Your task to perform on an android device: Search for "energizer triple a" on walmart.com, select the first entry, and add it to the cart. Image 0: 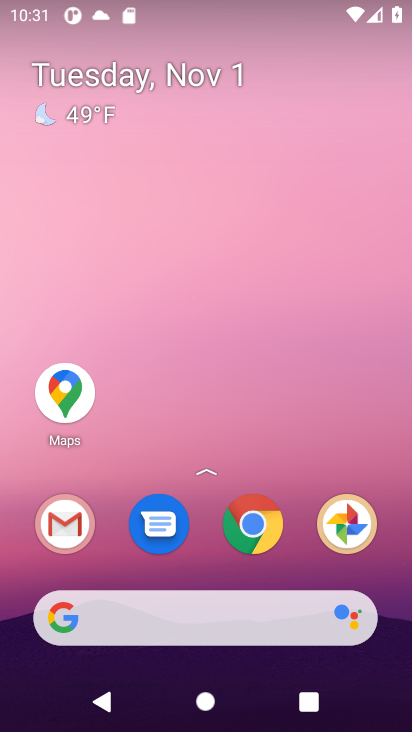
Step 0: press home button
Your task to perform on an android device: Search for "energizer triple a" on walmart.com, select the first entry, and add it to the cart. Image 1: 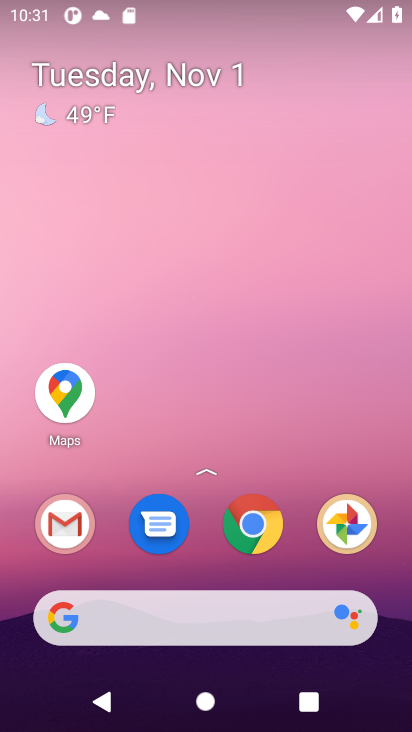
Step 1: click (85, 618)
Your task to perform on an android device: Search for "energizer triple a" on walmart.com, select the first entry, and add it to the cart. Image 2: 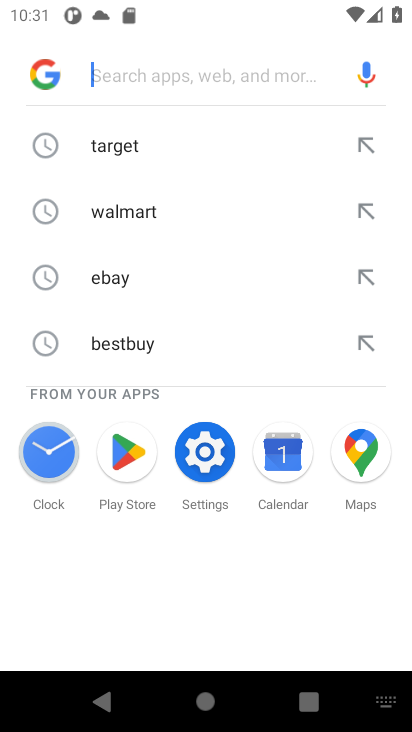
Step 2: type "walmart.com"
Your task to perform on an android device: Search for "energizer triple a" on walmart.com, select the first entry, and add it to the cart. Image 3: 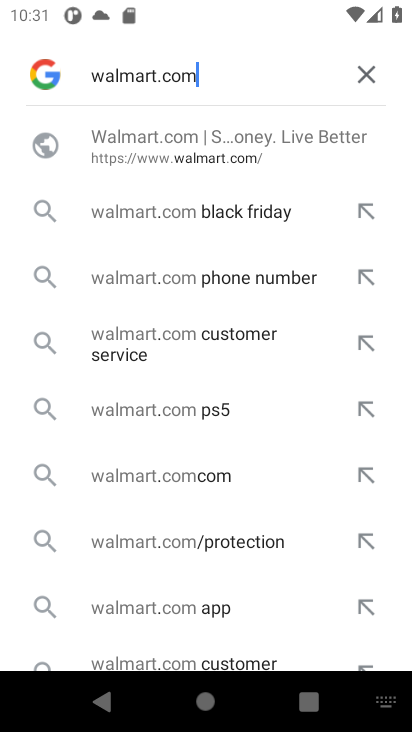
Step 3: press enter
Your task to perform on an android device: Search for "energizer triple a" on walmart.com, select the first entry, and add it to the cart. Image 4: 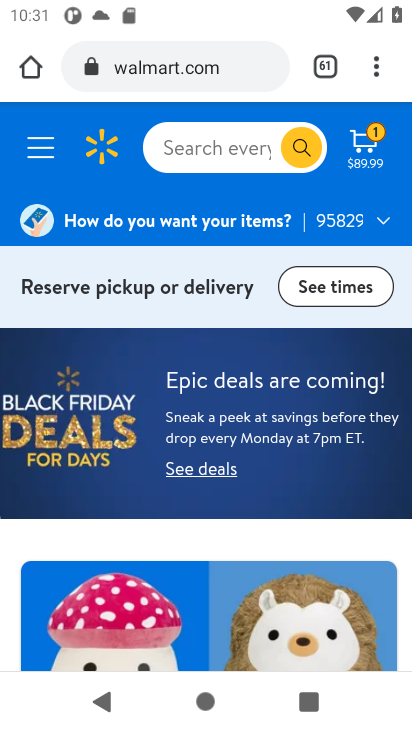
Step 4: click (174, 147)
Your task to perform on an android device: Search for "energizer triple a" on walmart.com, select the first entry, and add it to the cart. Image 5: 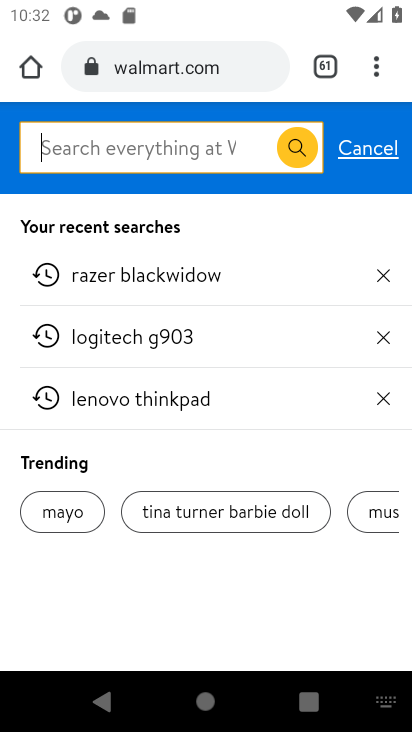
Step 5: press enter
Your task to perform on an android device: Search for "energizer triple a" on walmart.com, select the first entry, and add it to the cart. Image 6: 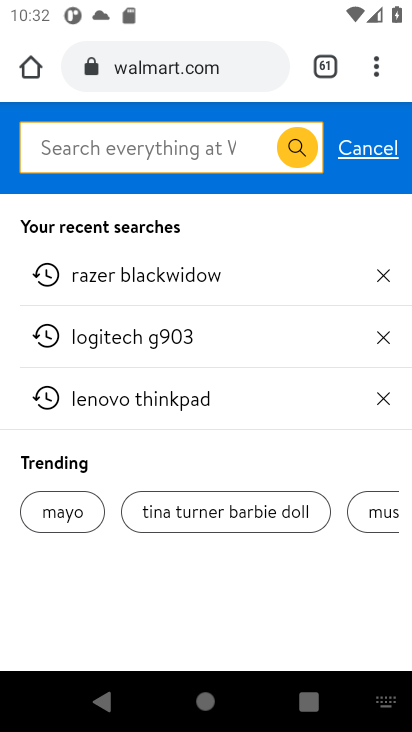
Step 6: type "energizer triple a"
Your task to perform on an android device: Search for "energizer triple a" on walmart.com, select the first entry, and add it to the cart. Image 7: 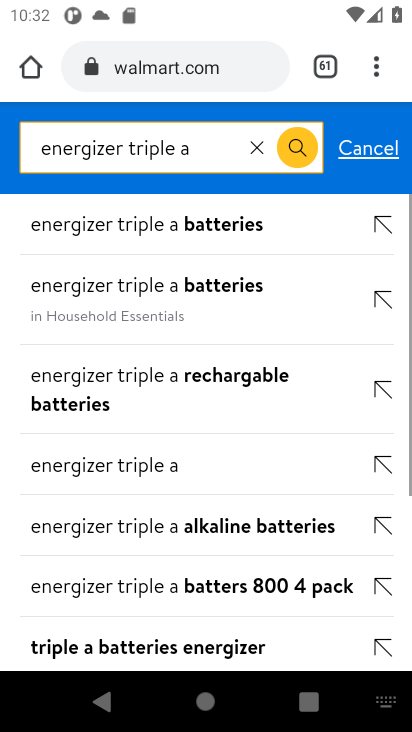
Step 7: press enter
Your task to perform on an android device: Search for "energizer triple a" on walmart.com, select the first entry, and add it to the cart. Image 8: 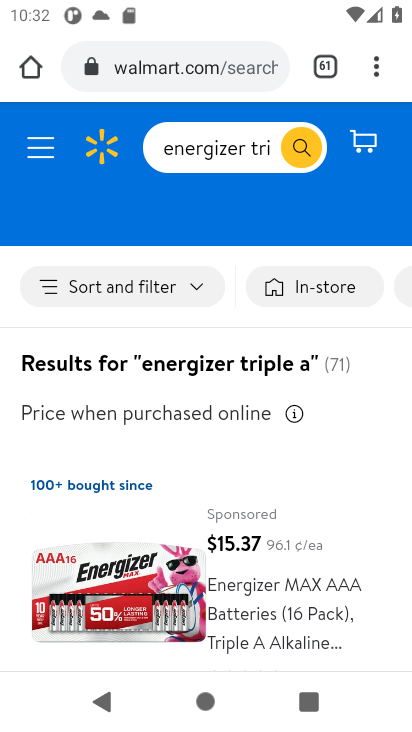
Step 8: drag from (270, 608) to (276, 333)
Your task to perform on an android device: Search for "energizer triple a" on walmart.com, select the first entry, and add it to the cart. Image 9: 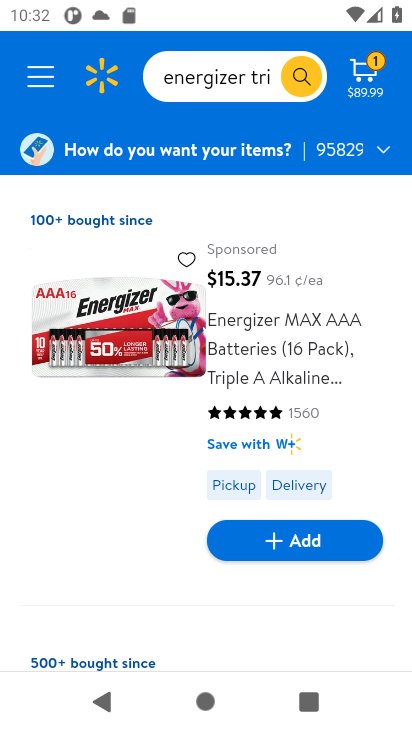
Step 9: drag from (155, 573) to (182, 391)
Your task to perform on an android device: Search for "energizer triple a" on walmart.com, select the first entry, and add it to the cart. Image 10: 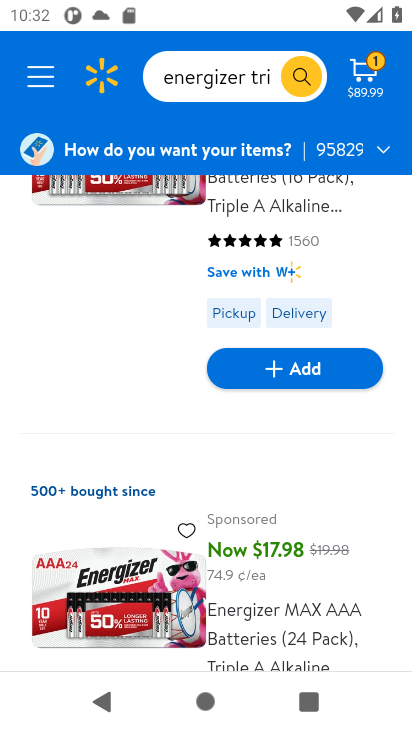
Step 10: click (325, 369)
Your task to perform on an android device: Search for "energizer triple a" on walmart.com, select the first entry, and add it to the cart. Image 11: 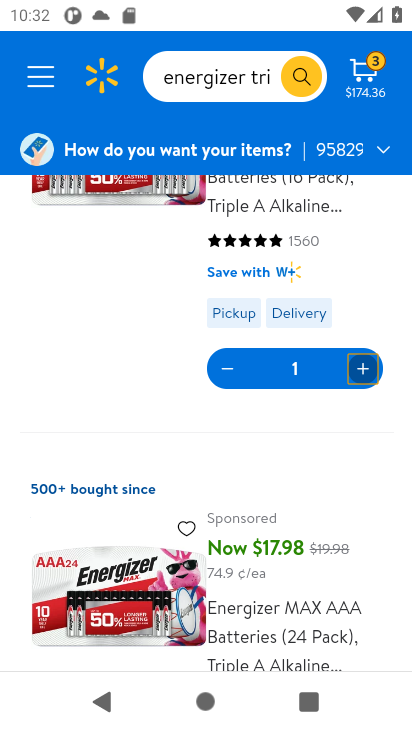
Step 11: task complete